Your task to perform on an android device: Open settings on Google Maps Image 0: 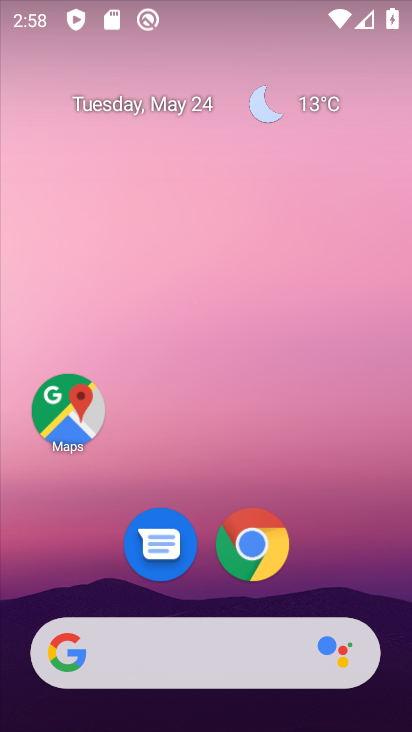
Step 0: drag from (338, 537) to (102, 2)
Your task to perform on an android device: Open settings on Google Maps Image 1: 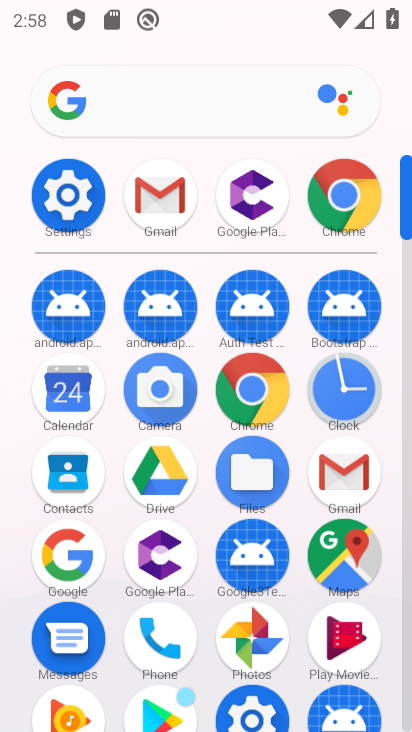
Step 1: click (336, 535)
Your task to perform on an android device: Open settings on Google Maps Image 2: 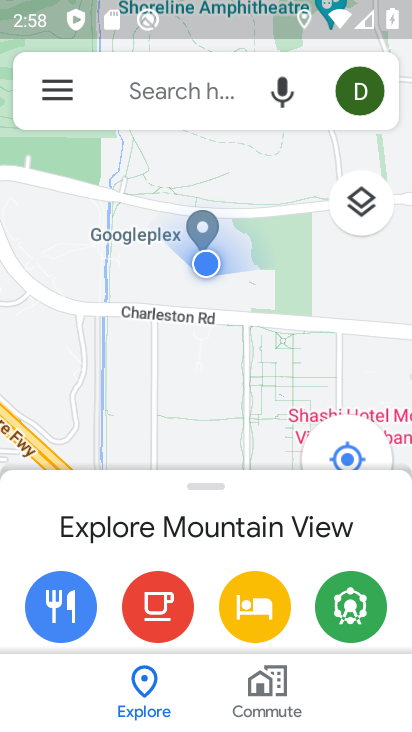
Step 2: task complete